Your task to perform on an android device: turn off javascript in the chrome app Image 0: 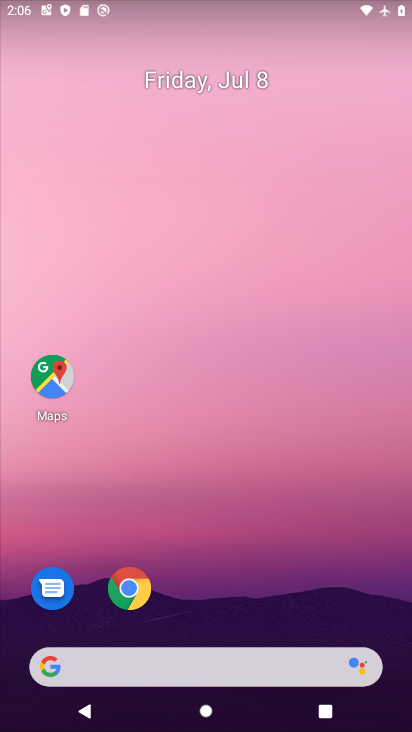
Step 0: press home button
Your task to perform on an android device: turn off javascript in the chrome app Image 1: 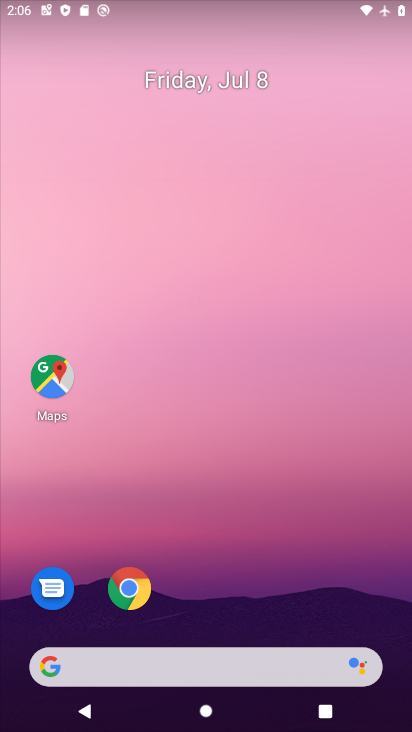
Step 1: drag from (264, 632) to (242, 264)
Your task to perform on an android device: turn off javascript in the chrome app Image 2: 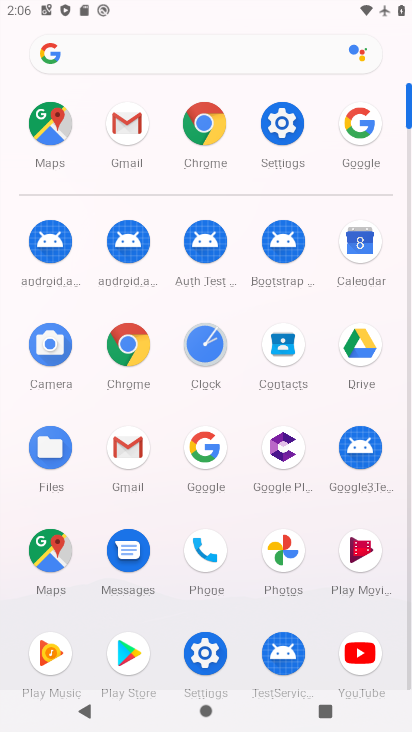
Step 2: click (197, 125)
Your task to perform on an android device: turn off javascript in the chrome app Image 3: 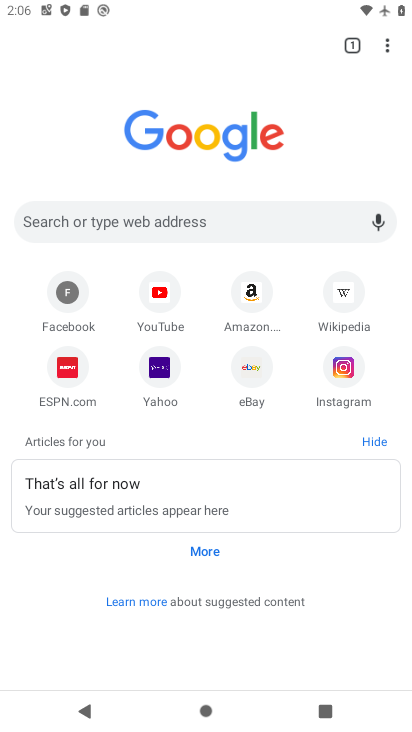
Step 3: drag from (388, 45) to (259, 345)
Your task to perform on an android device: turn off javascript in the chrome app Image 4: 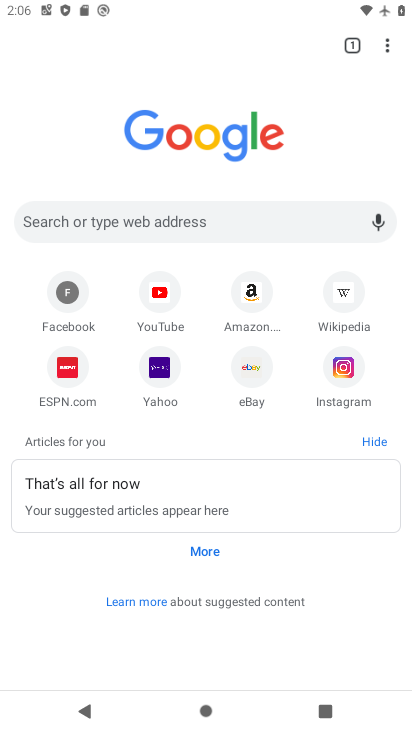
Step 4: drag from (387, 48) to (236, 392)
Your task to perform on an android device: turn off javascript in the chrome app Image 5: 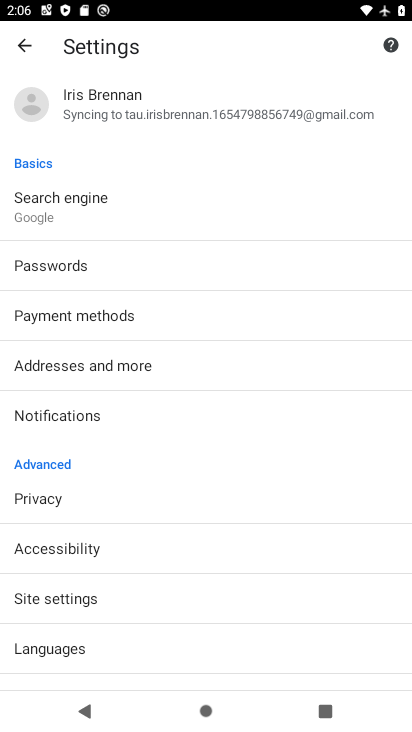
Step 5: click (47, 595)
Your task to perform on an android device: turn off javascript in the chrome app Image 6: 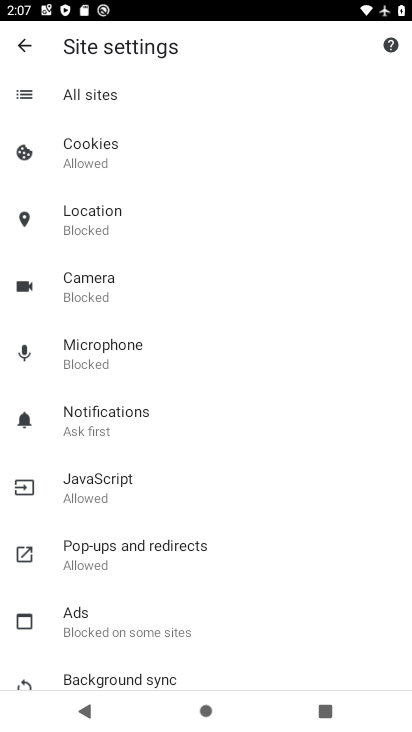
Step 6: click (105, 491)
Your task to perform on an android device: turn off javascript in the chrome app Image 7: 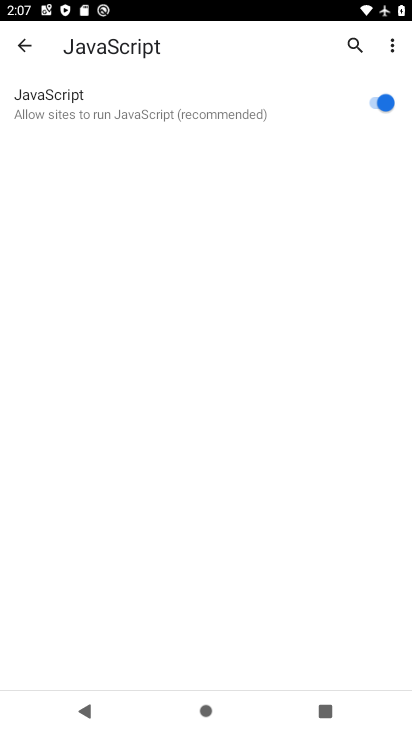
Step 7: click (381, 102)
Your task to perform on an android device: turn off javascript in the chrome app Image 8: 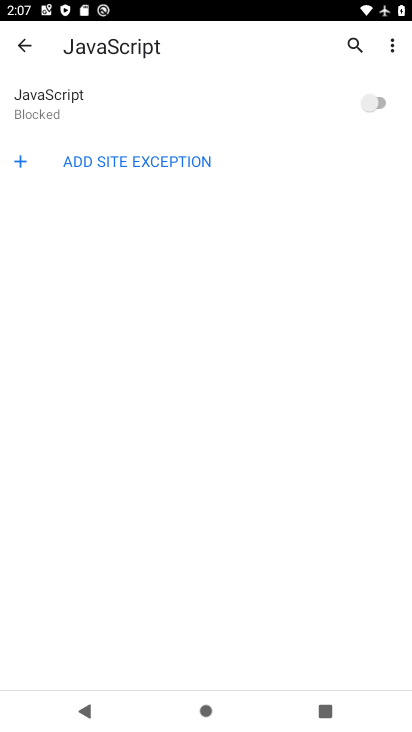
Step 8: task complete